Your task to perform on an android device: find photos in the google photos app Image 0: 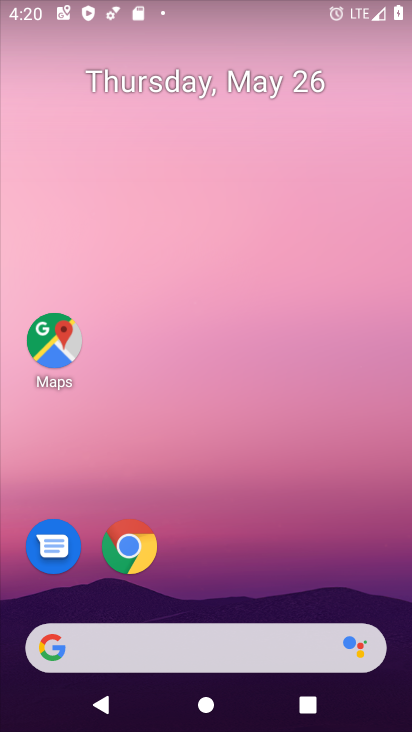
Step 0: drag from (258, 581) to (264, 128)
Your task to perform on an android device: find photos in the google photos app Image 1: 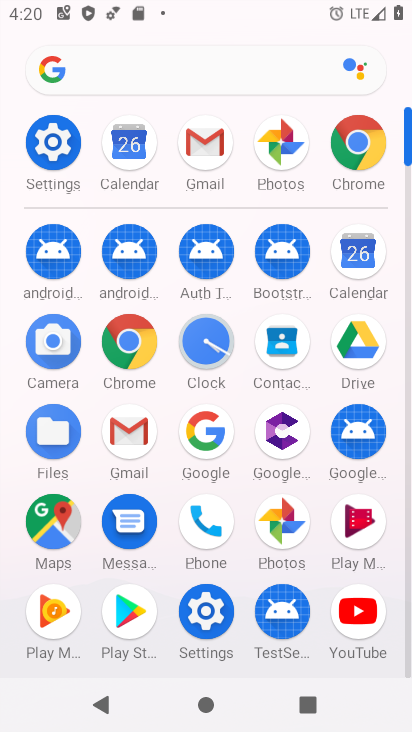
Step 1: click (289, 527)
Your task to perform on an android device: find photos in the google photos app Image 2: 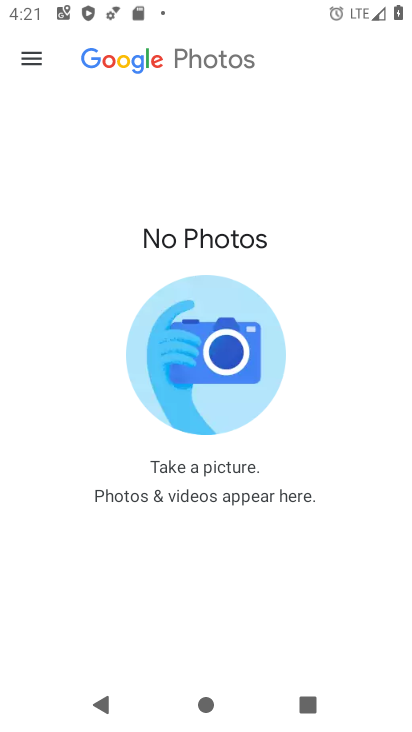
Step 2: task complete